Your task to perform on an android device: turn notification dots on Image 0: 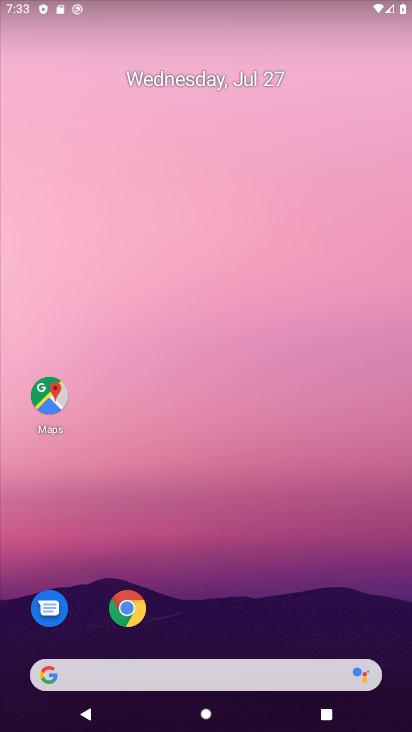
Step 0: drag from (221, 548) to (275, 280)
Your task to perform on an android device: turn notification dots on Image 1: 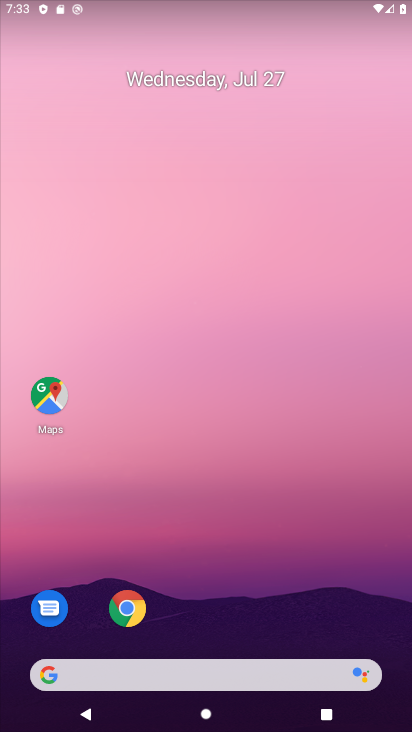
Step 1: drag from (243, 536) to (191, 101)
Your task to perform on an android device: turn notification dots on Image 2: 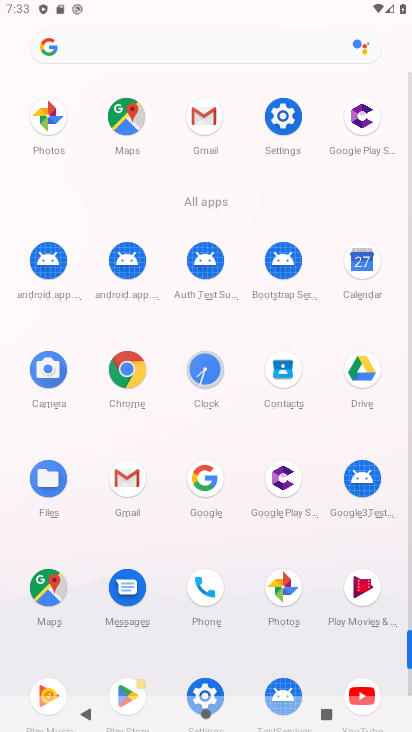
Step 2: click (291, 118)
Your task to perform on an android device: turn notification dots on Image 3: 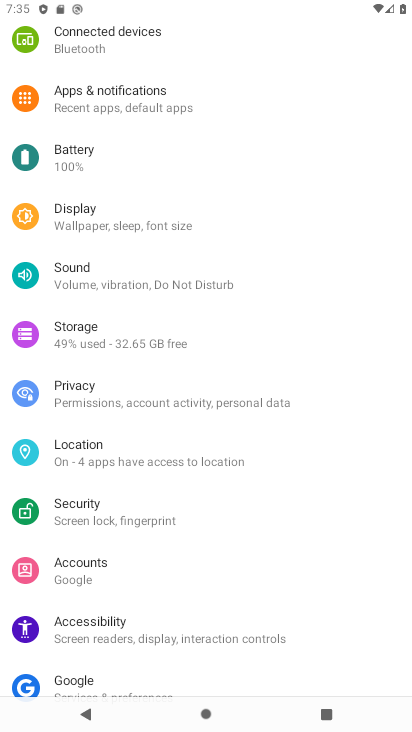
Step 3: press home button
Your task to perform on an android device: turn notification dots on Image 4: 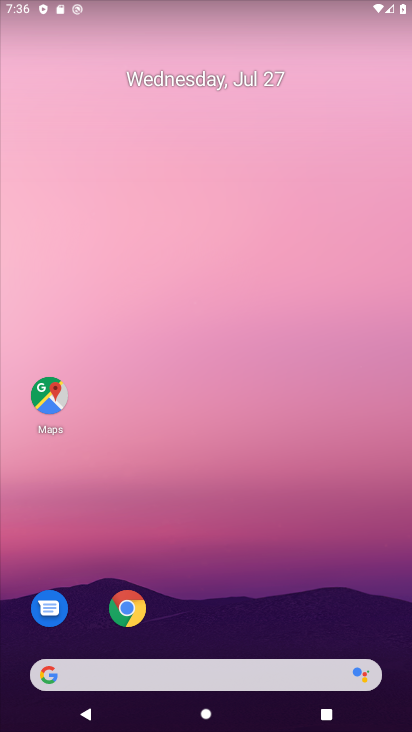
Step 4: drag from (262, 507) to (296, 169)
Your task to perform on an android device: turn notification dots on Image 5: 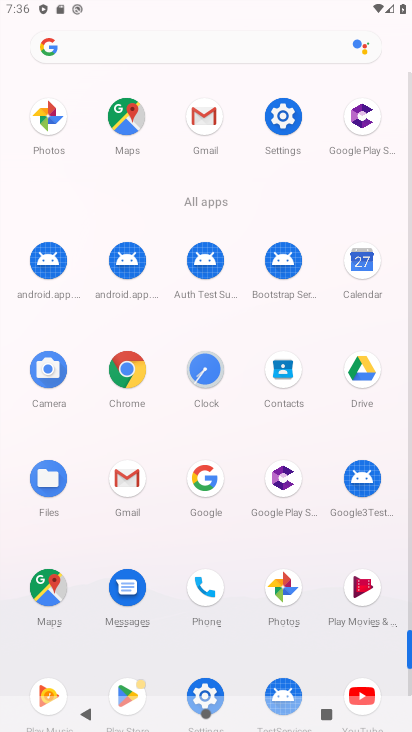
Step 5: click (283, 109)
Your task to perform on an android device: turn notification dots on Image 6: 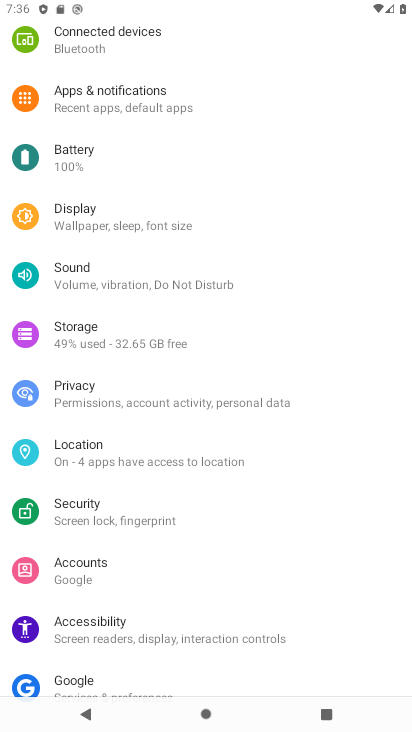
Step 6: task complete